Your task to perform on an android device: turn pop-ups off in chrome Image 0: 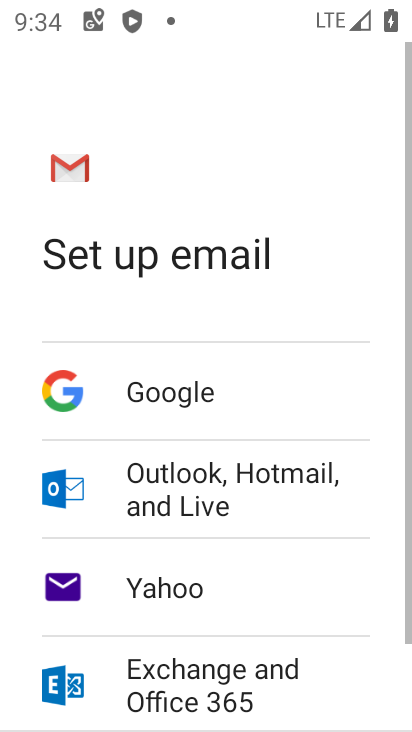
Step 0: press home button
Your task to perform on an android device: turn pop-ups off in chrome Image 1: 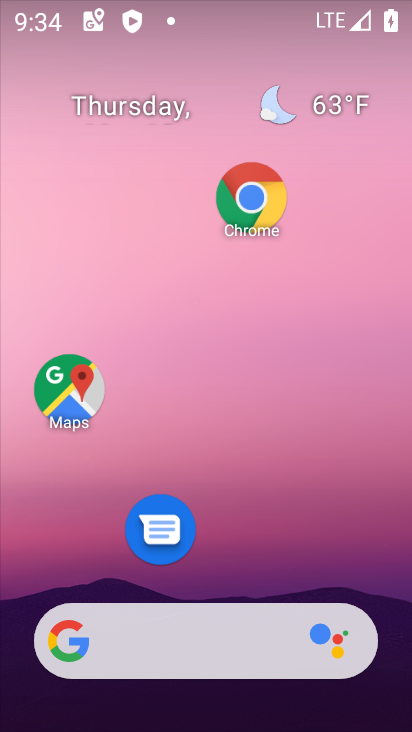
Step 1: click (255, 237)
Your task to perform on an android device: turn pop-ups off in chrome Image 2: 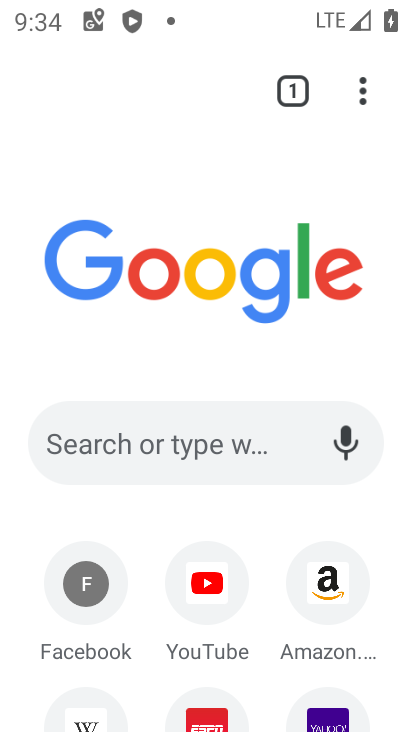
Step 2: click (365, 100)
Your task to perform on an android device: turn pop-ups off in chrome Image 3: 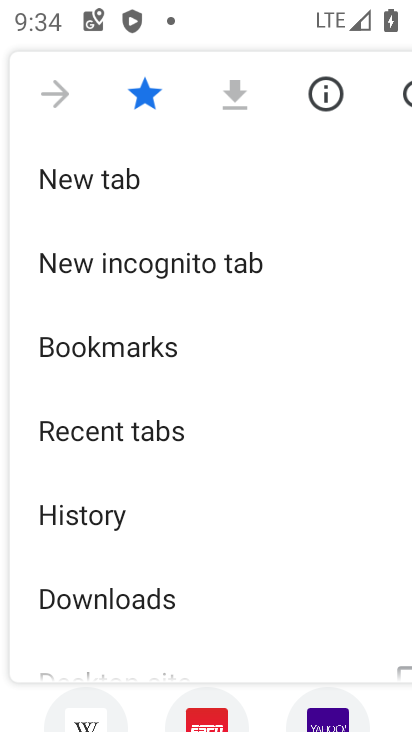
Step 3: drag from (221, 555) to (302, 12)
Your task to perform on an android device: turn pop-ups off in chrome Image 4: 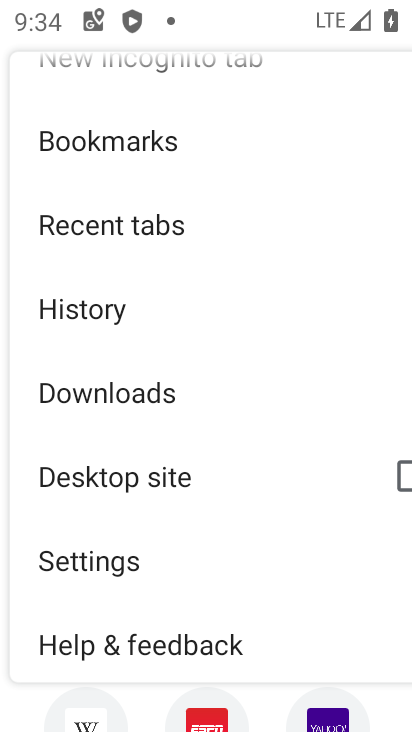
Step 4: click (146, 557)
Your task to perform on an android device: turn pop-ups off in chrome Image 5: 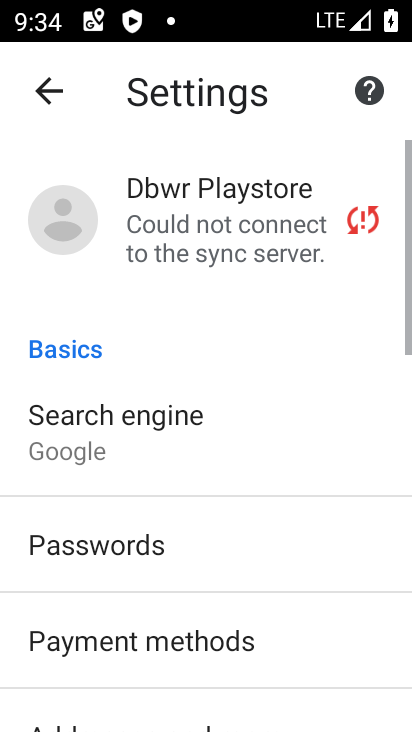
Step 5: drag from (140, 640) to (186, 192)
Your task to perform on an android device: turn pop-ups off in chrome Image 6: 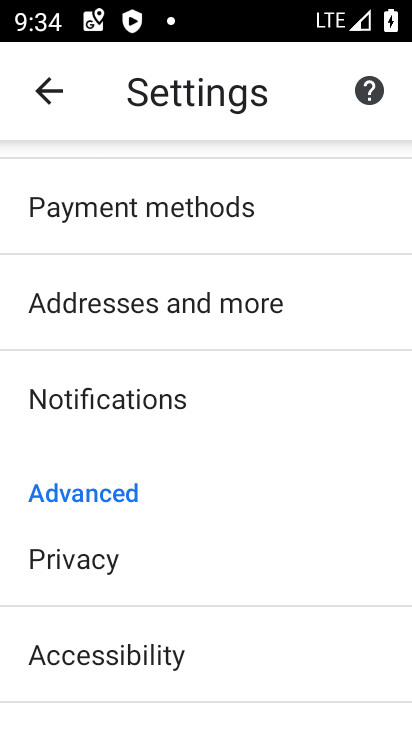
Step 6: drag from (132, 592) to (171, 426)
Your task to perform on an android device: turn pop-ups off in chrome Image 7: 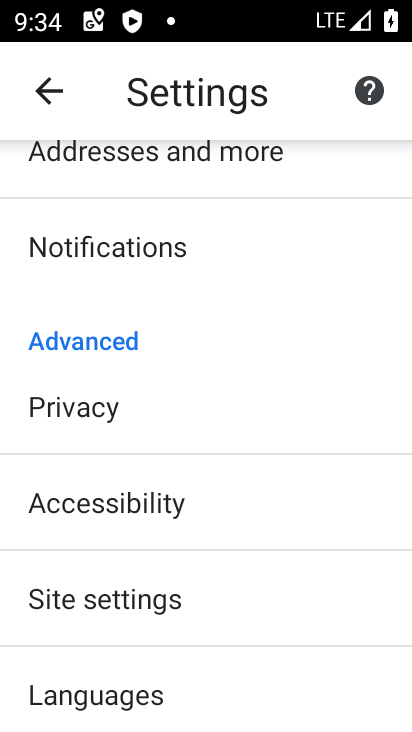
Step 7: click (139, 593)
Your task to perform on an android device: turn pop-ups off in chrome Image 8: 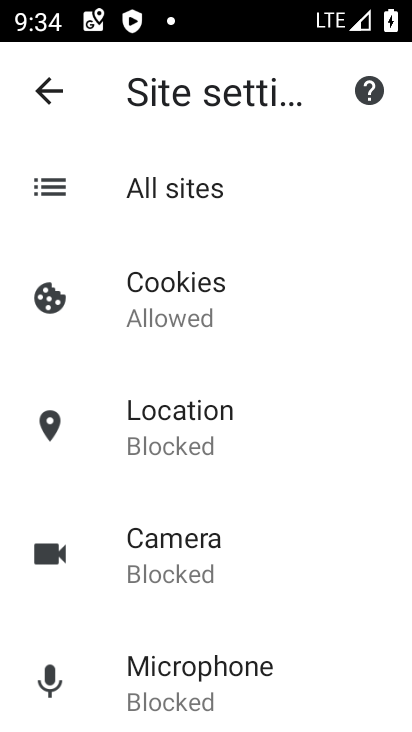
Step 8: drag from (139, 594) to (228, 273)
Your task to perform on an android device: turn pop-ups off in chrome Image 9: 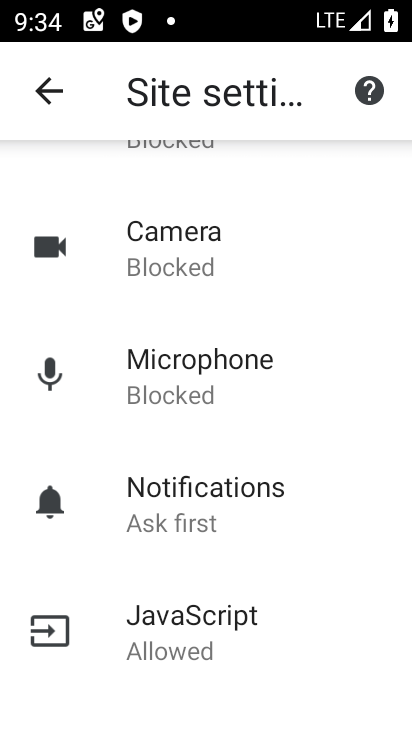
Step 9: drag from (189, 639) to (253, 412)
Your task to perform on an android device: turn pop-ups off in chrome Image 10: 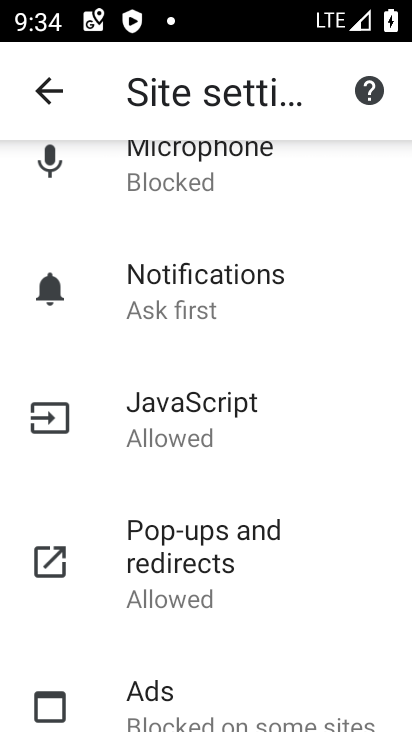
Step 10: click (226, 581)
Your task to perform on an android device: turn pop-ups off in chrome Image 11: 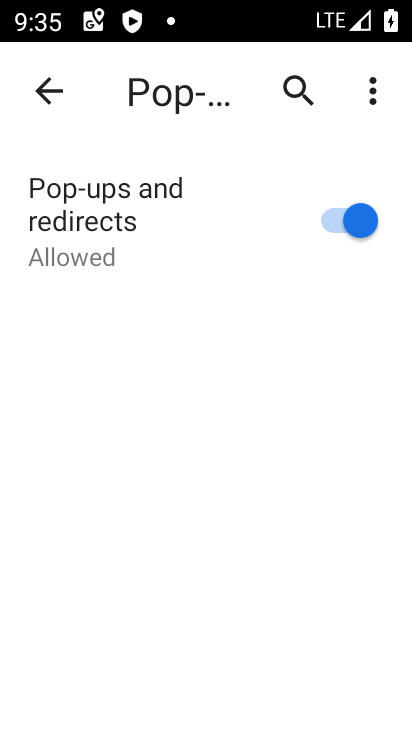
Step 11: click (336, 232)
Your task to perform on an android device: turn pop-ups off in chrome Image 12: 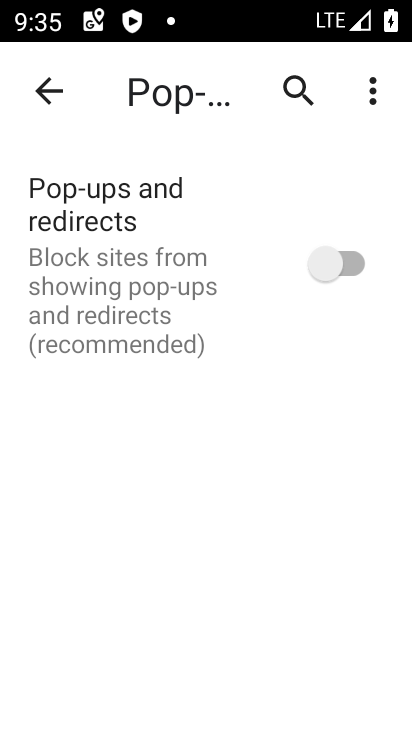
Step 12: task complete